Your task to perform on an android device: Toggle the flashlight Image 0: 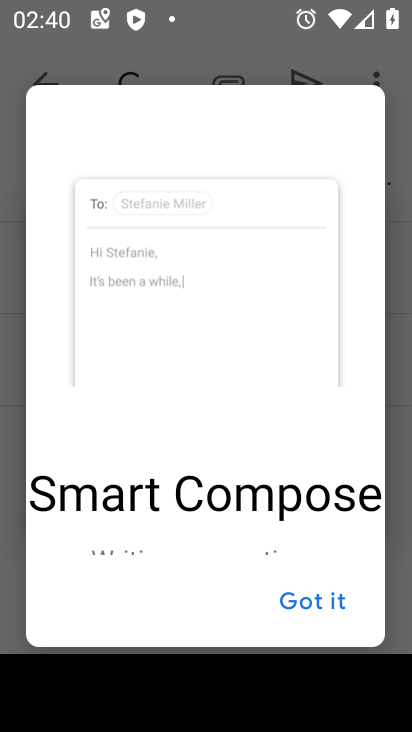
Step 0: click (310, 589)
Your task to perform on an android device: Toggle the flashlight Image 1: 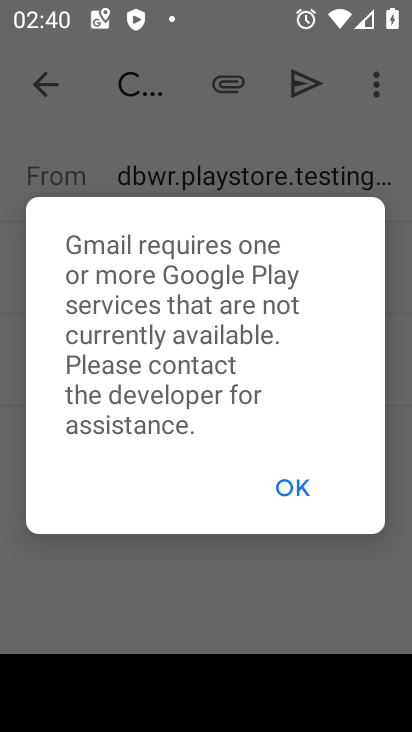
Step 1: task complete